Your task to perform on an android device: turn on priority inbox in the gmail app Image 0: 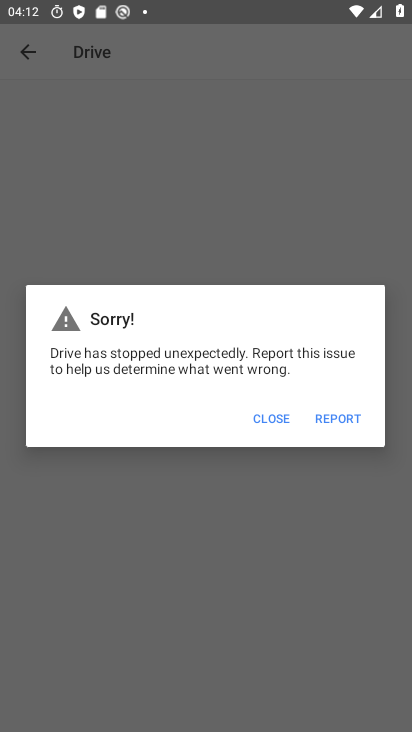
Step 0: press home button
Your task to perform on an android device: turn on priority inbox in the gmail app Image 1: 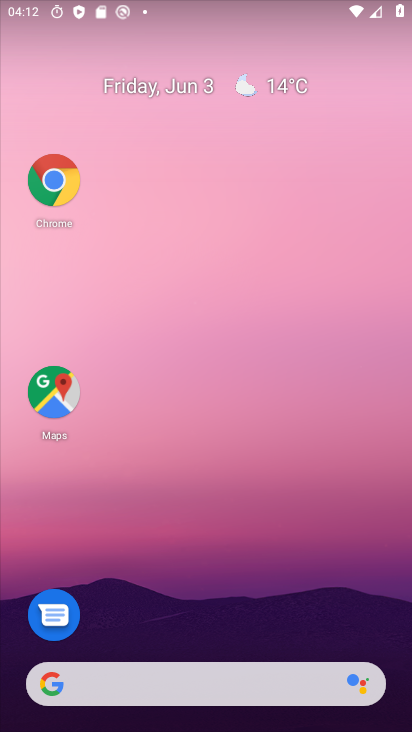
Step 1: drag from (112, 722) to (212, 2)
Your task to perform on an android device: turn on priority inbox in the gmail app Image 2: 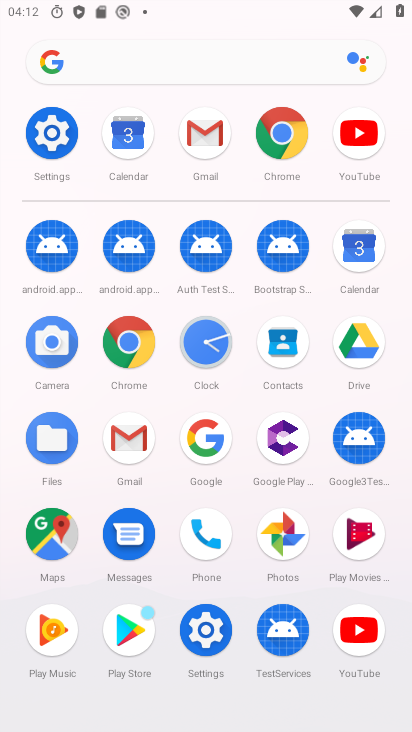
Step 2: click (135, 441)
Your task to perform on an android device: turn on priority inbox in the gmail app Image 3: 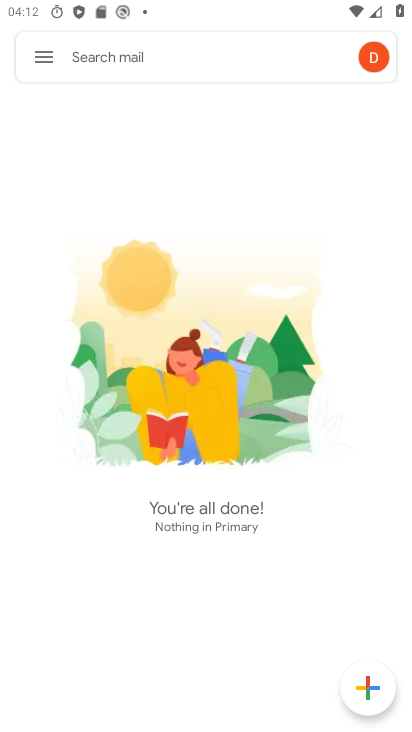
Step 3: click (31, 67)
Your task to perform on an android device: turn on priority inbox in the gmail app Image 4: 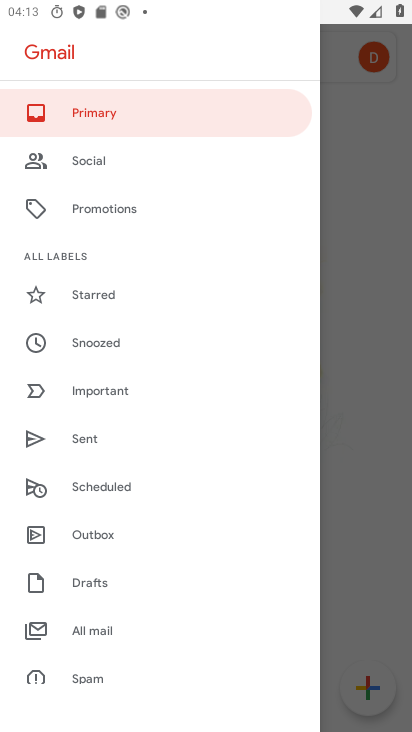
Step 4: drag from (115, 638) to (152, 151)
Your task to perform on an android device: turn on priority inbox in the gmail app Image 5: 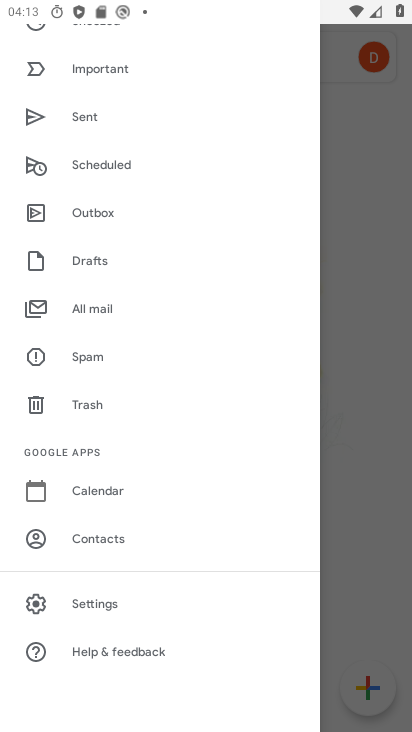
Step 5: click (107, 602)
Your task to perform on an android device: turn on priority inbox in the gmail app Image 6: 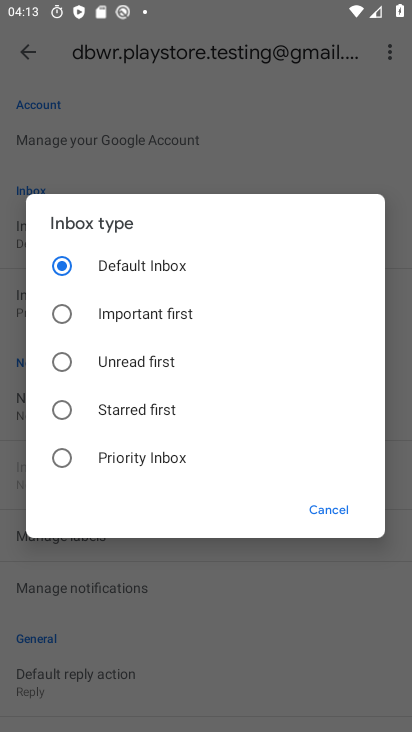
Step 6: click (107, 456)
Your task to perform on an android device: turn on priority inbox in the gmail app Image 7: 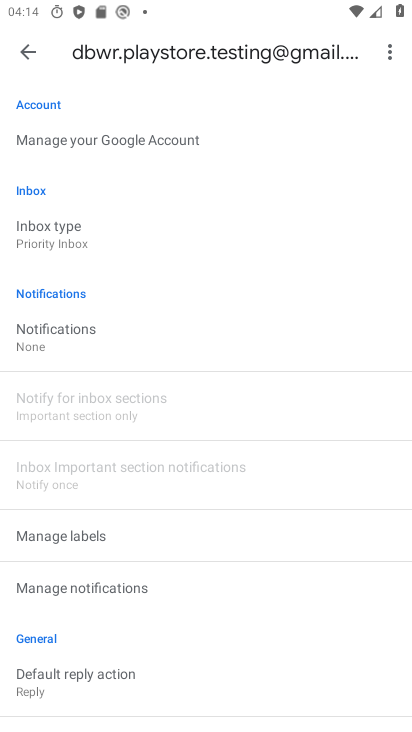
Step 7: task complete